Your task to perform on an android device: Open Yahoo.com Image 0: 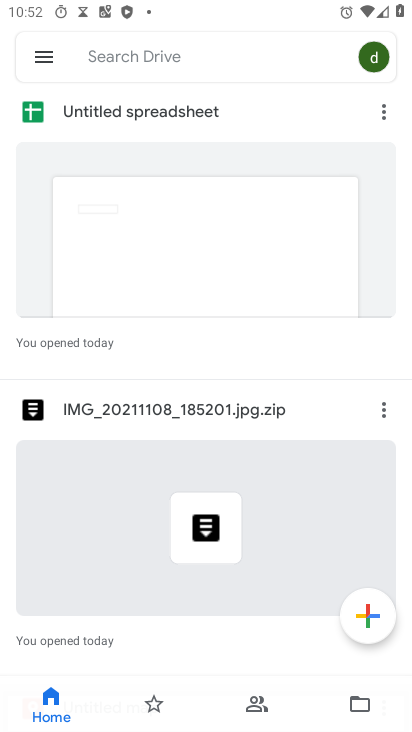
Step 0: press home button
Your task to perform on an android device: Open Yahoo.com Image 1: 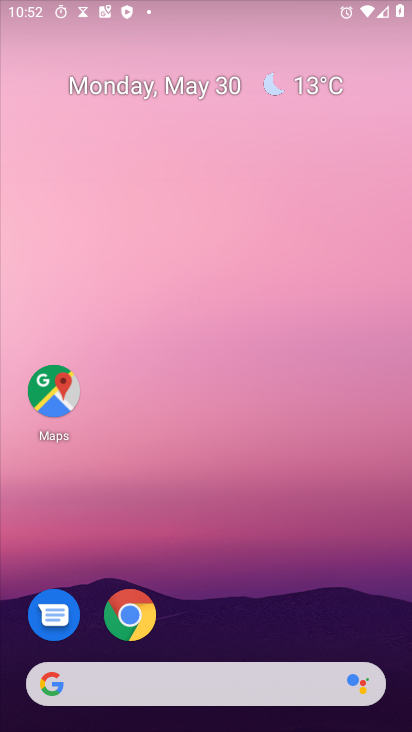
Step 1: drag from (273, 459) to (245, 178)
Your task to perform on an android device: Open Yahoo.com Image 2: 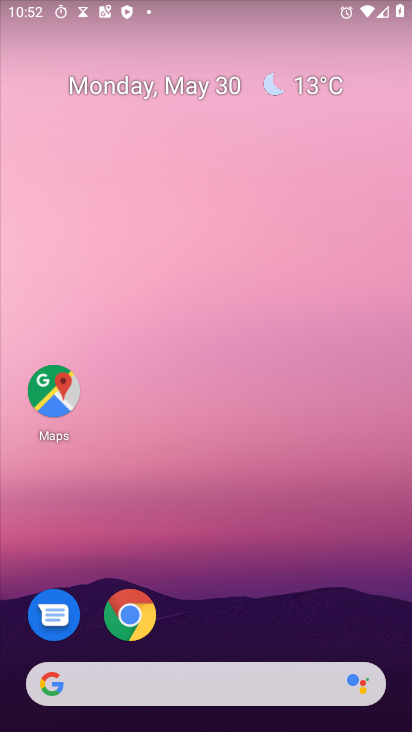
Step 2: drag from (328, 627) to (292, 207)
Your task to perform on an android device: Open Yahoo.com Image 3: 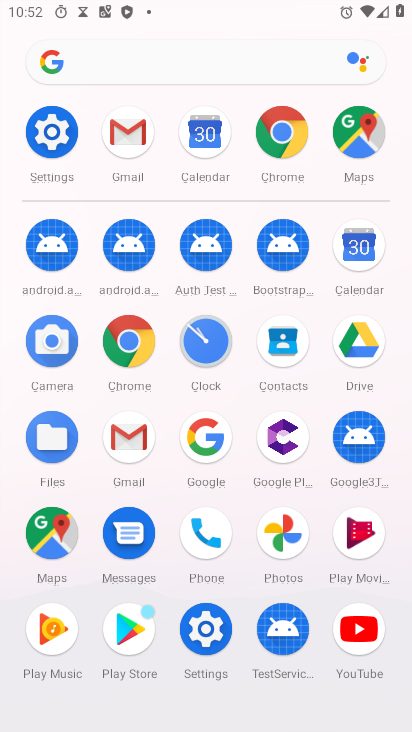
Step 3: click (301, 134)
Your task to perform on an android device: Open Yahoo.com Image 4: 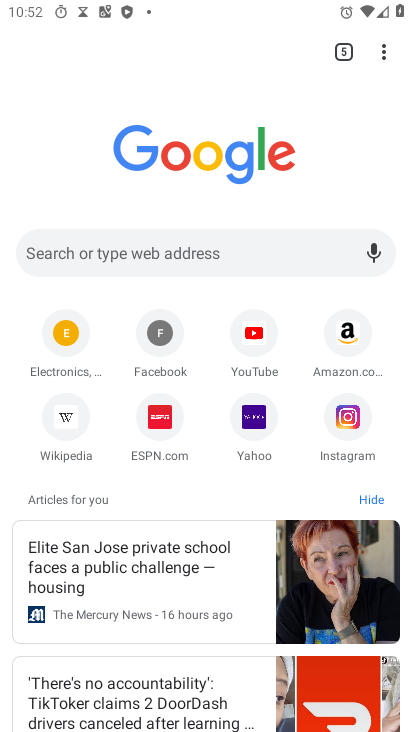
Step 4: click (231, 410)
Your task to perform on an android device: Open Yahoo.com Image 5: 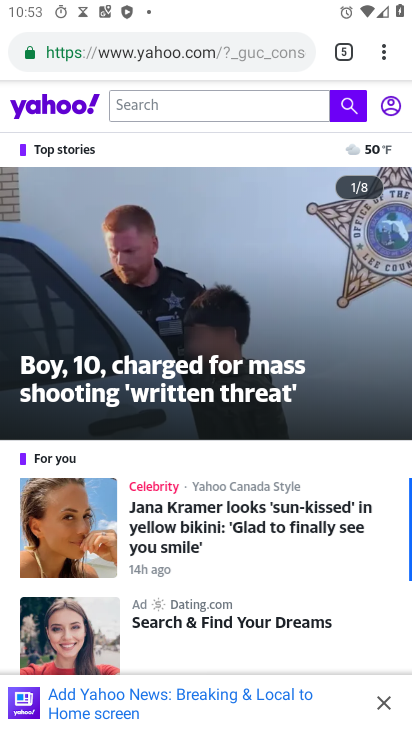
Step 5: task complete